Your task to perform on an android device: Turn off the flashlight Image 0: 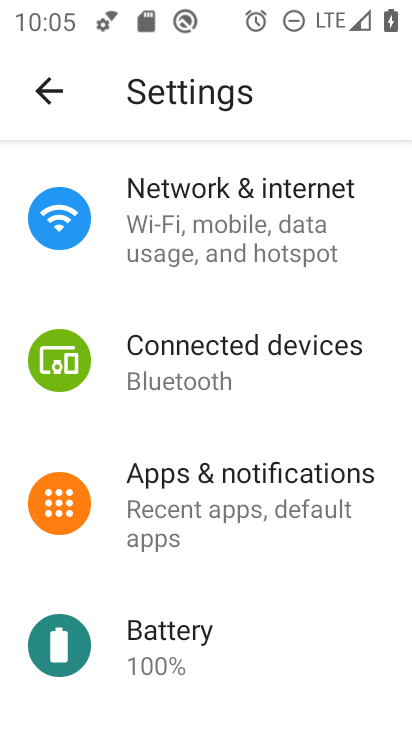
Step 0: drag from (279, 534) to (247, 247)
Your task to perform on an android device: Turn off the flashlight Image 1: 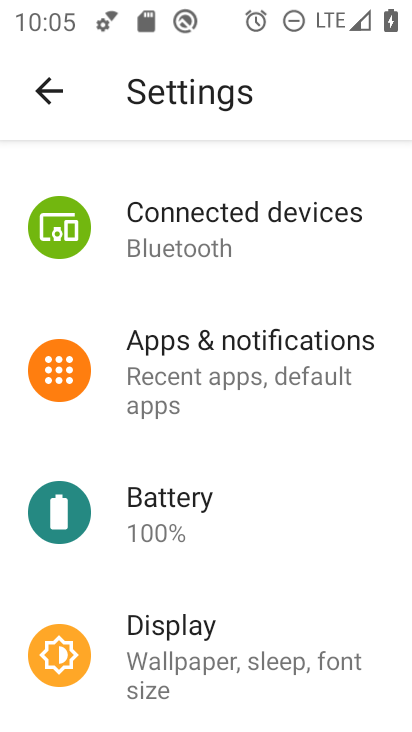
Step 1: click (228, 338)
Your task to perform on an android device: Turn off the flashlight Image 2: 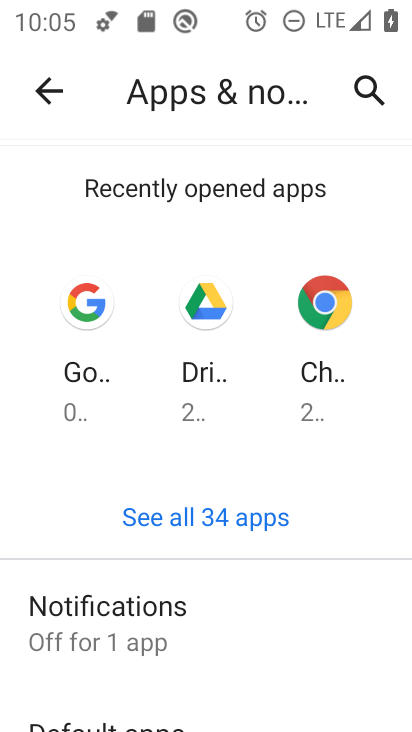
Step 2: task complete